Your task to perform on an android device: Go to settings Image 0: 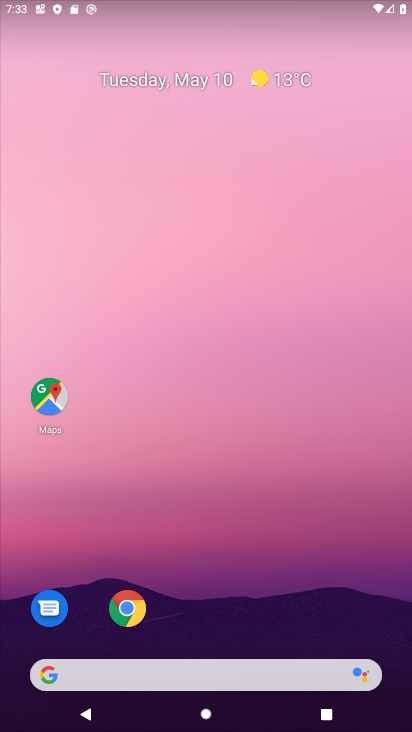
Step 0: drag from (257, 607) to (258, 224)
Your task to perform on an android device: Go to settings Image 1: 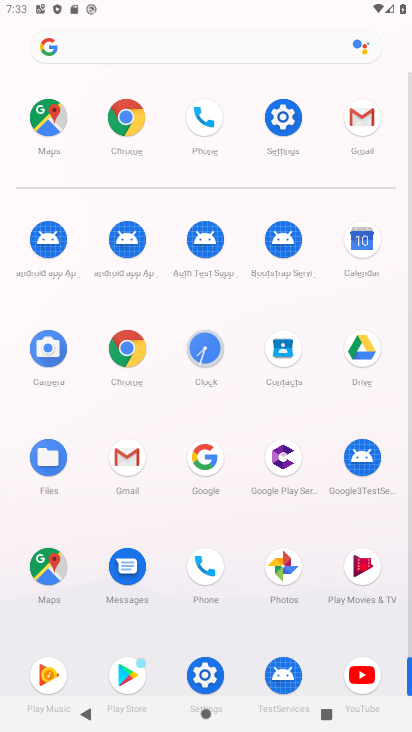
Step 1: click (273, 130)
Your task to perform on an android device: Go to settings Image 2: 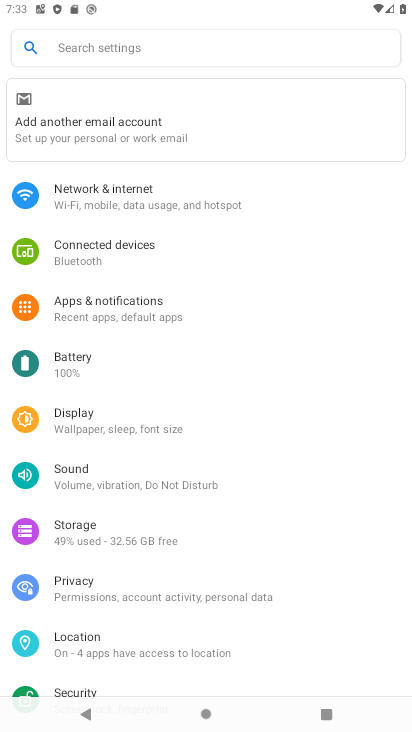
Step 2: task complete